Your task to perform on an android device: Open calendar and show me the third week of next month Image 0: 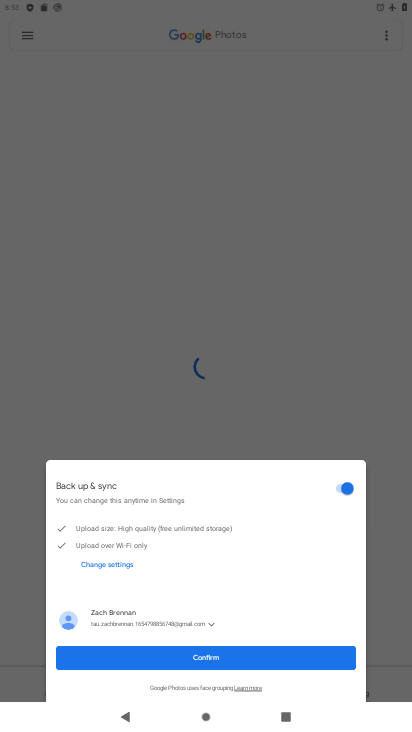
Step 0: press home button
Your task to perform on an android device: Open calendar and show me the third week of next month Image 1: 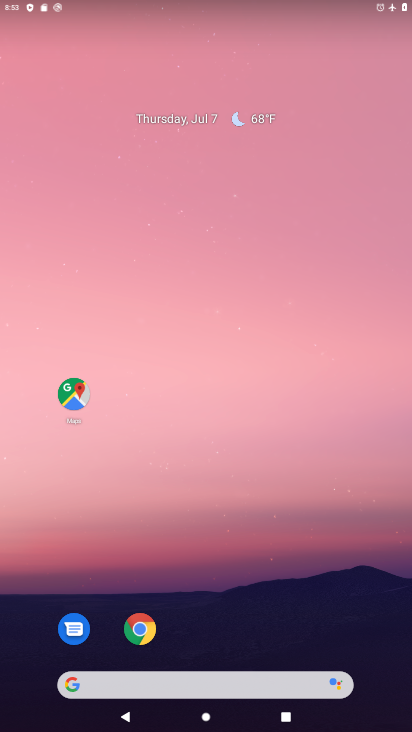
Step 1: drag from (195, 643) to (287, 69)
Your task to perform on an android device: Open calendar and show me the third week of next month Image 2: 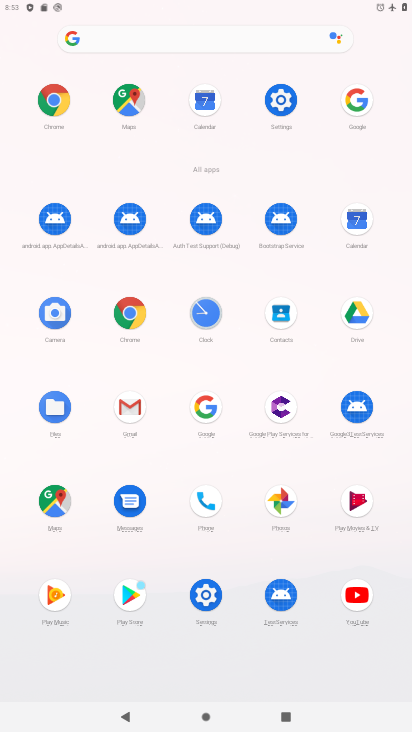
Step 2: click (355, 222)
Your task to perform on an android device: Open calendar and show me the third week of next month Image 3: 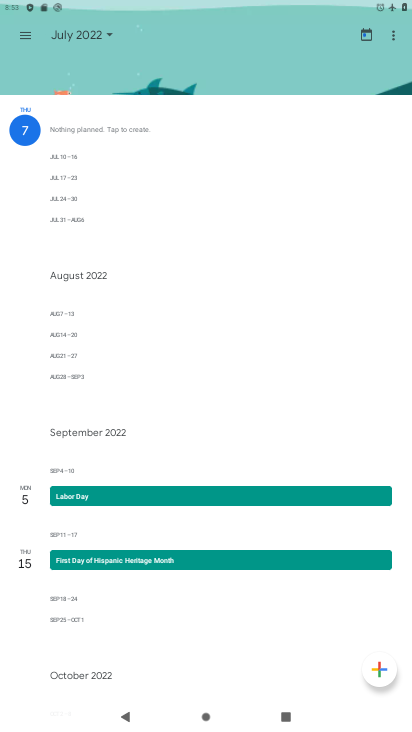
Step 3: click (103, 40)
Your task to perform on an android device: Open calendar and show me the third week of next month Image 4: 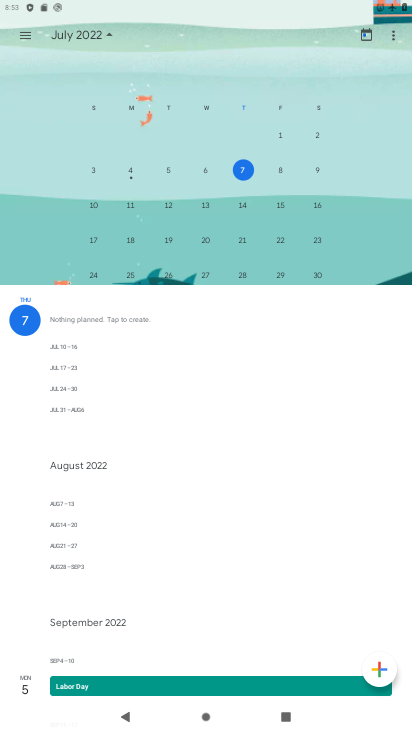
Step 4: drag from (367, 228) to (39, 208)
Your task to perform on an android device: Open calendar and show me the third week of next month Image 5: 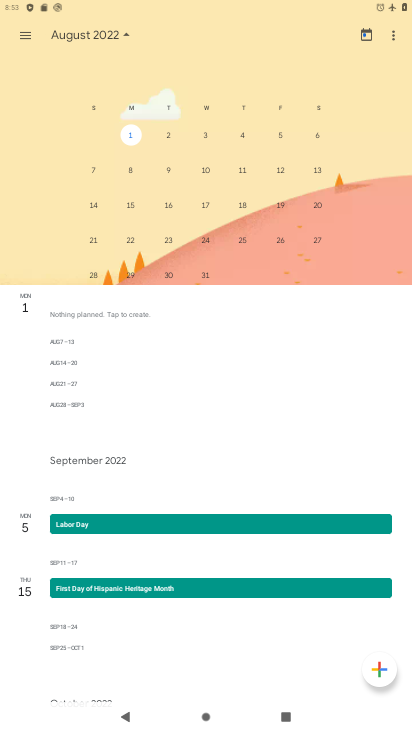
Step 5: click (203, 202)
Your task to perform on an android device: Open calendar and show me the third week of next month Image 6: 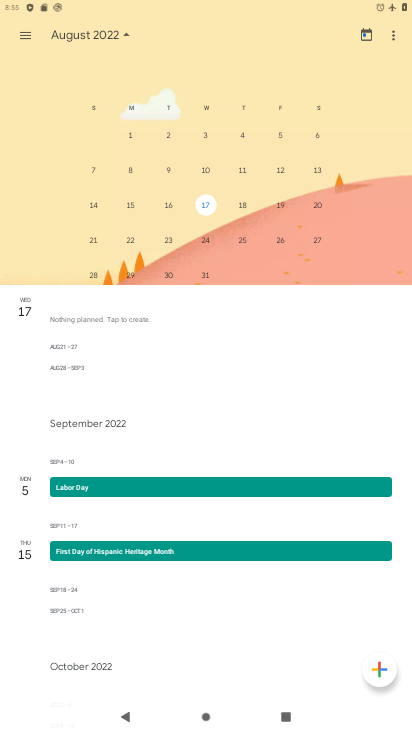
Step 6: task complete